Your task to perform on an android device: manage bookmarks in the chrome app Image 0: 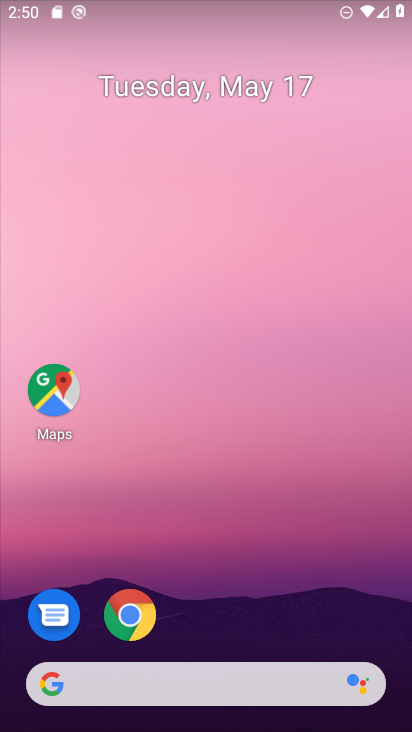
Step 0: click (130, 611)
Your task to perform on an android device: manage bookmarks in the chrome app Image 1: 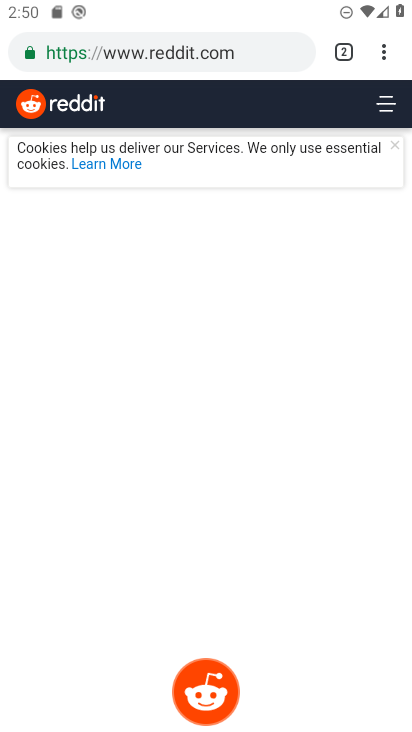
Step 1: click (383, 55)
Your task to perform on an android device: manage bookmarks in the chrome app Image 2: 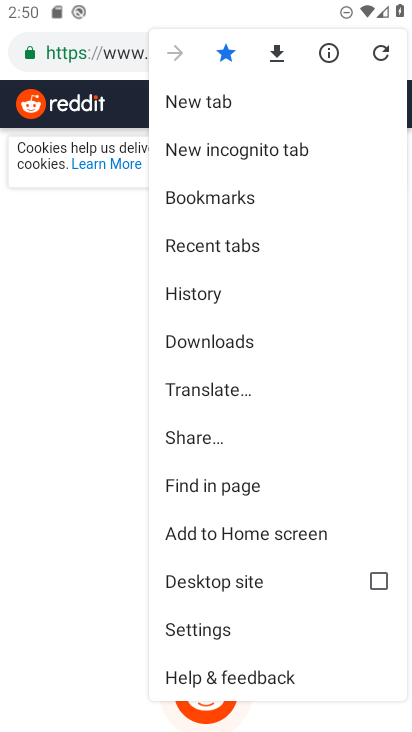
Step 2: click (220, 193)
Your task to perform on an android device: manage bookmarks in the chrome app Image 3: 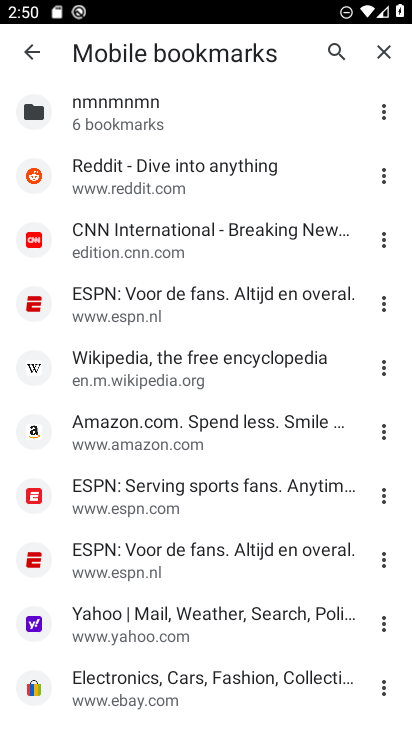
Step 3: click (383, 236)
Your task to perform on an android device: manage bookmarks in the chrome app Image 4: 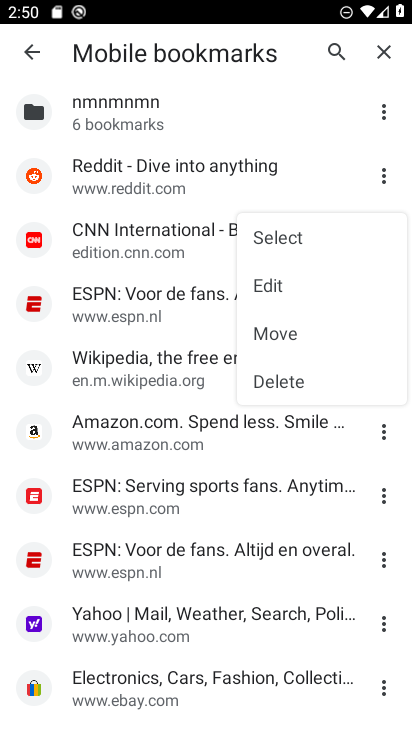
Step 4: click (283, 280)
Your task to perform on an android device: manage bookmarks in the chrome app Image 5: 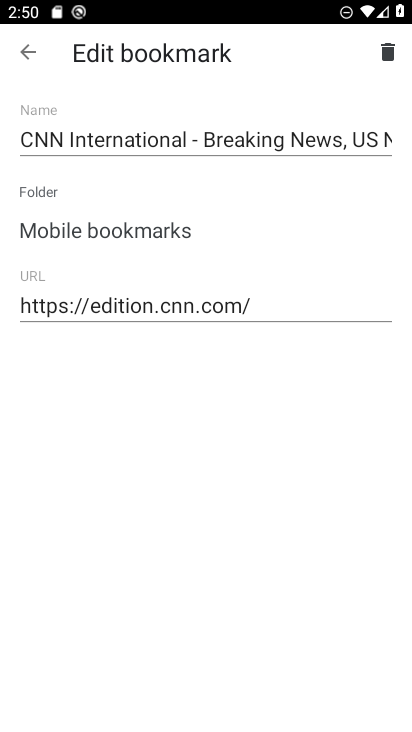
Step 5: click (233, 134)
Your task to perform on an android device: manage bookmarks in the chrome app Image 6: 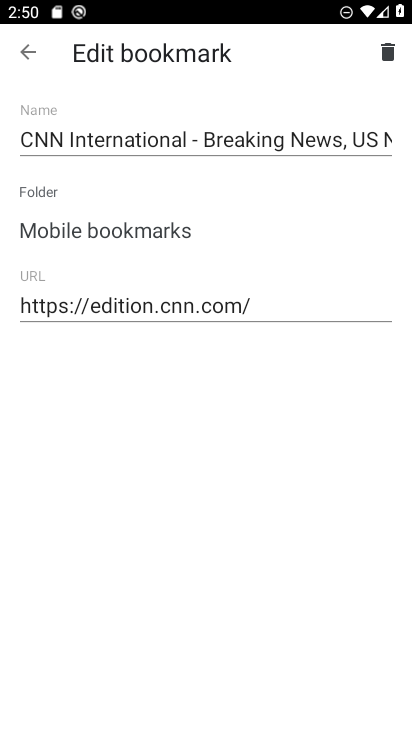
Step 6: click (233, 134)
Your task to perform on an android device: manage bookmarks in the chrome app Image 7: 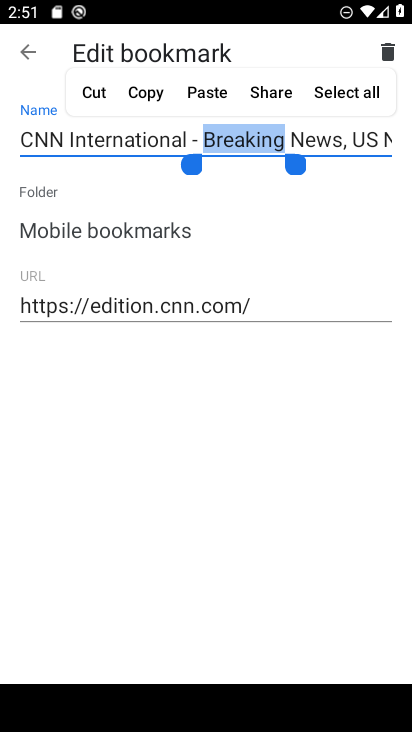
Step 7: click (95, 93)
Your task to perform on an android device: manage bookmarks in the chrome app Image 8: 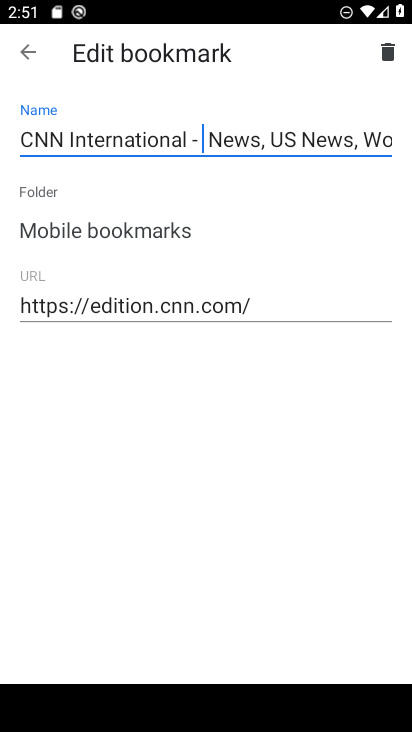
Step 8: type "latest"
Your task to perform on an android device: manage bookmarks in the chrome app Image 9: 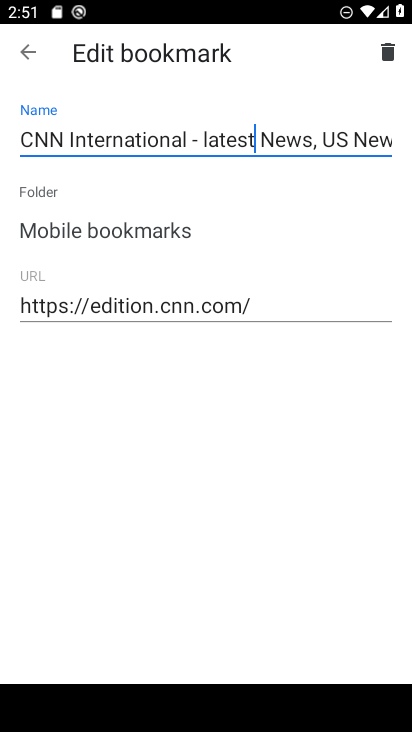
Step 9: click (24, 51)
Your task to perform on an android device: manage bookmarks in the chrome app Image 10: 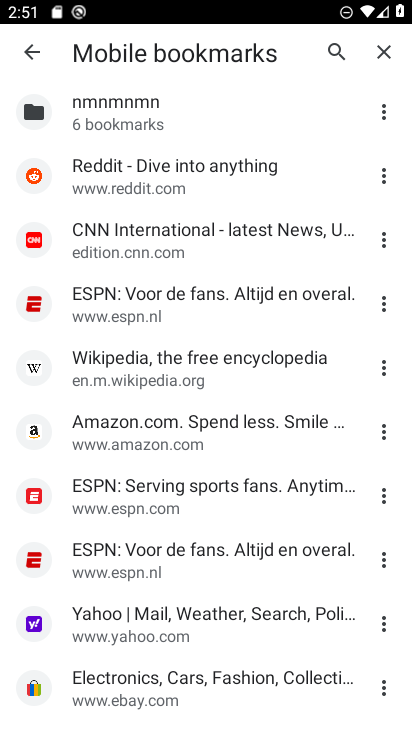
Step 10: task complete